Your task to perform on an android device: Open display settings Image 0: 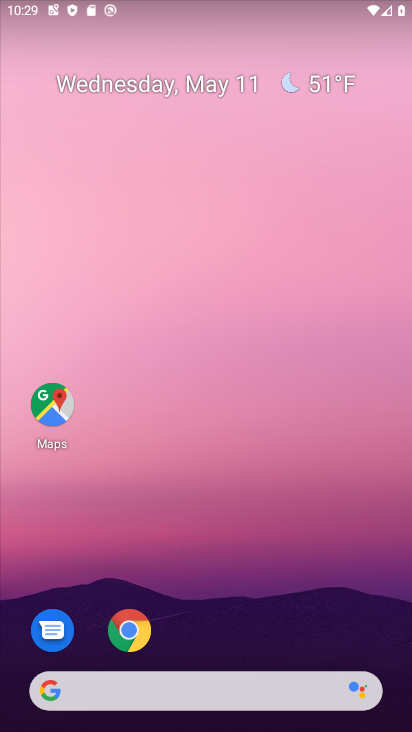
Step 0: drag from (206, 726) to (218, 60)
Your task to perform on an android device: Open display settings Image 1: 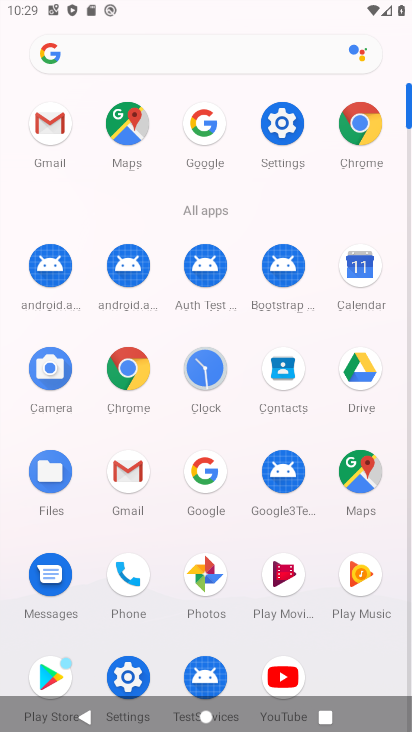
Step 1: click (281, 126)
Your task to perform on an android device: Open display settings Image 2: 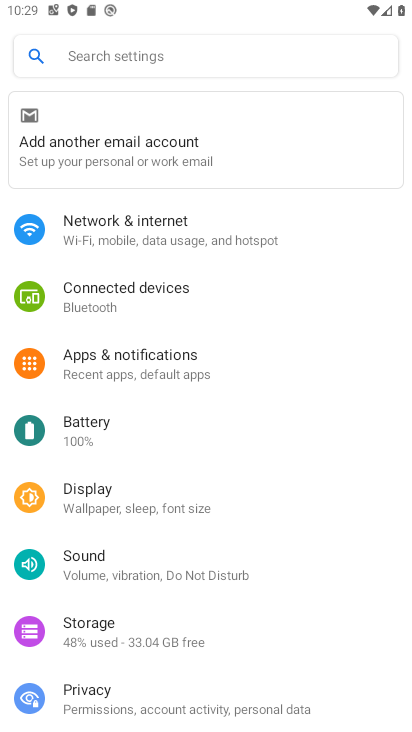
Step 2: click (92, 499)
Your task to perform on an android device: Open display settings Image 3: 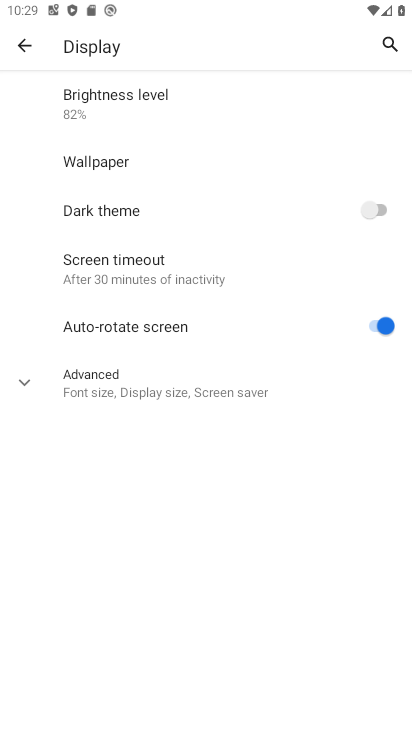
Step 3: task complete